Your task to perform on an android device: check the backup settings in the google photos Image 0: 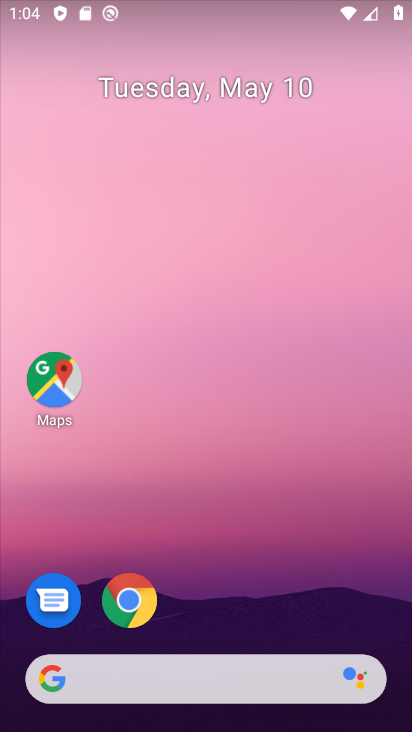
Step 0: drag from (266, 596) to (269, 33)
Your task to perform on an android device: check the backup settings in the google photos Image 1: 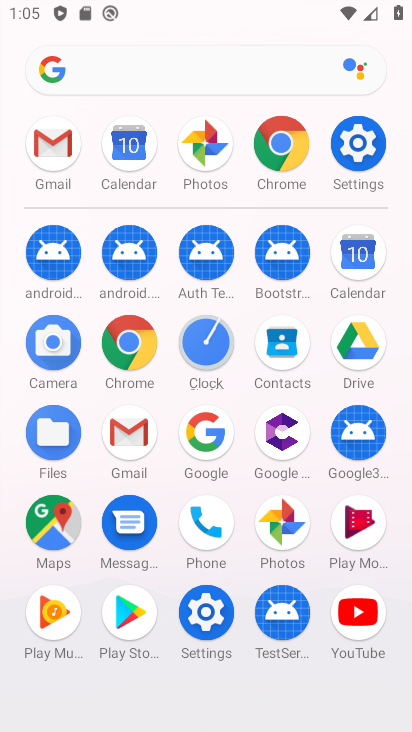
Step 1: click (278, 561)
Your task to perform on an android device: check the backup settings in the google photos Image 2: 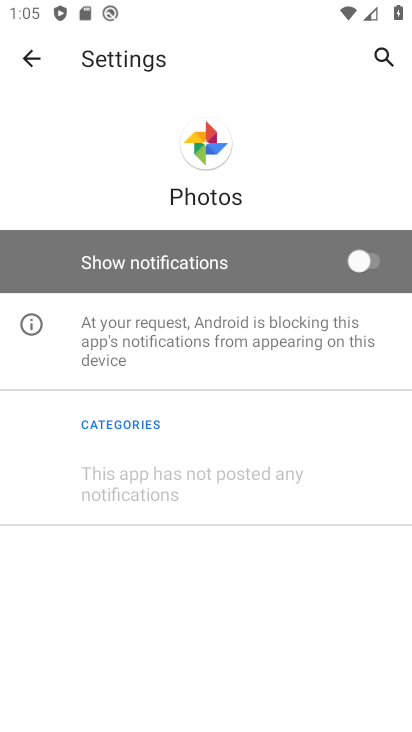
Step 2: click (33, 58)
Your task to perform on an android device: check the backup settings in the google photos Image 3: 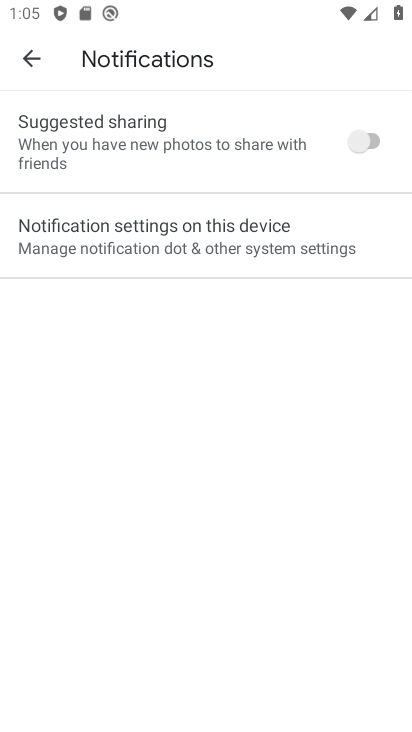
Step 3: click (33, 56)
Your task to perform on an android device: check the backup settings in the google photos Image 4: 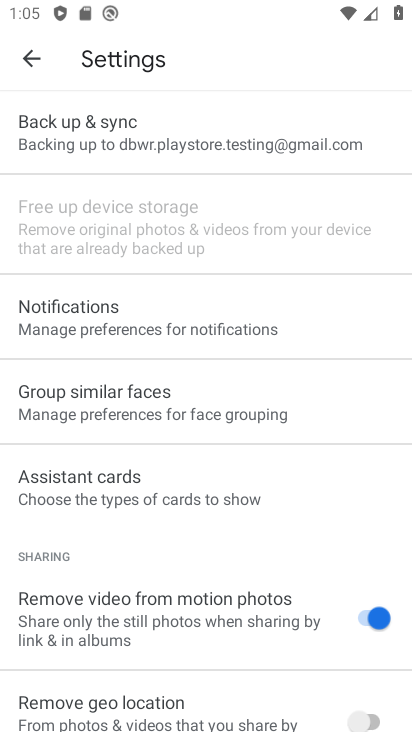
Step 4: click (92, 146)
Your task to perform on an android device: check the backup settings in the google photos Image 5: 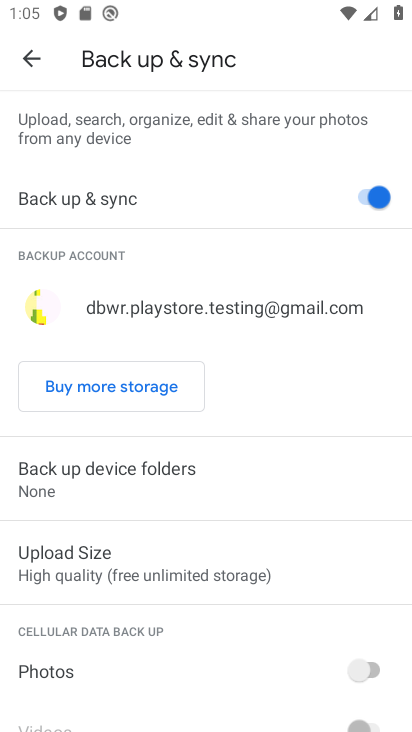
Step 5: task complete